Your task to perform on an android device: Check the weather Image 0: 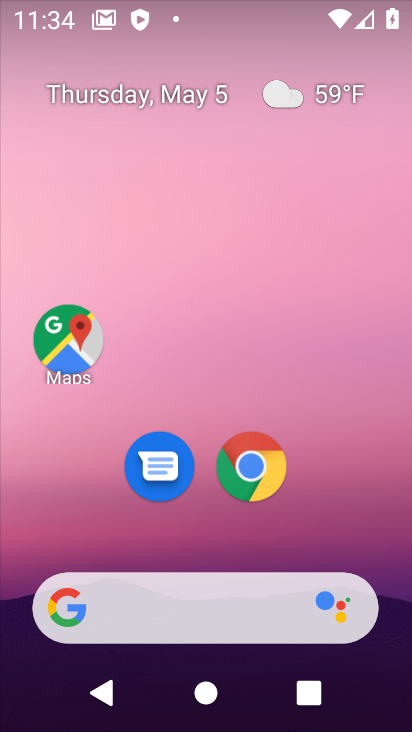
Step 0: click (248, 466)
Your task to perform on an android device: Check the weather Image 1: 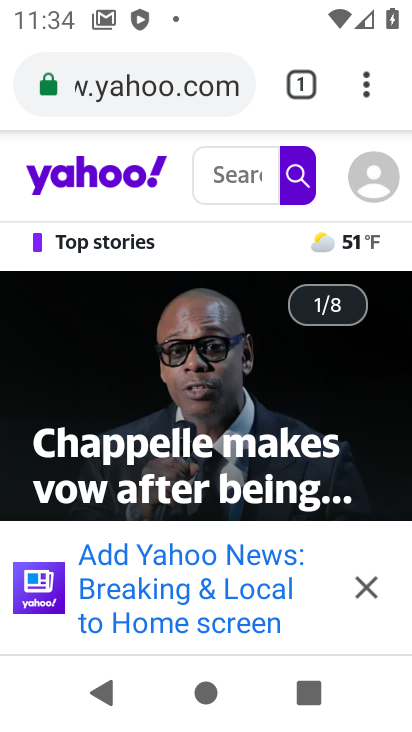
Step 1: click (170, 100)
Your task to perform on an android device: Check the weather Image 2: 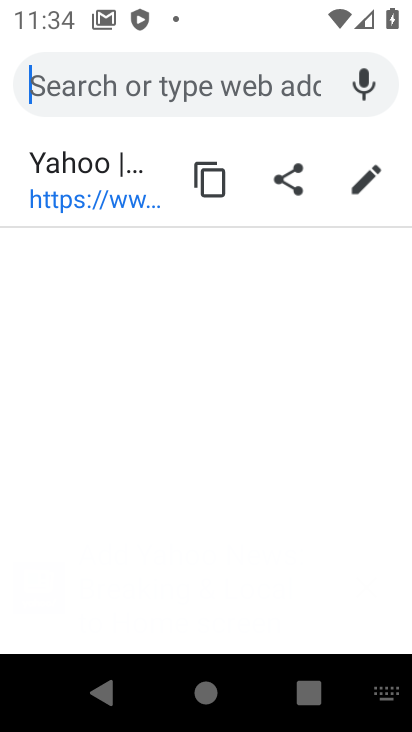
Step 2: type "weather"
Your task to perform on an android device: Check the weather Image 3: 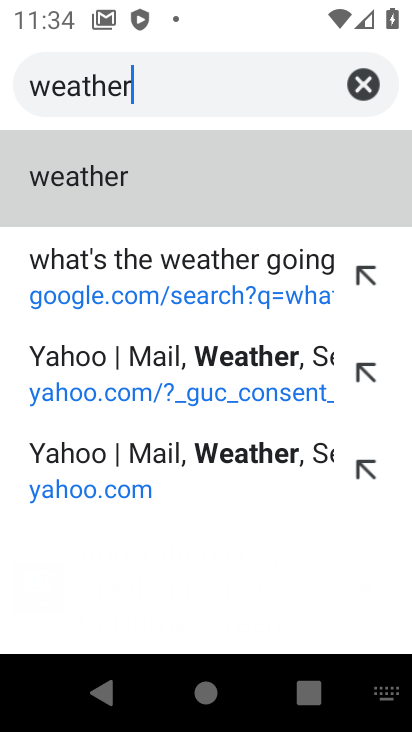
Step 3: click (115, 212)
Your task to perform on an android device: Check the weather Image 4: 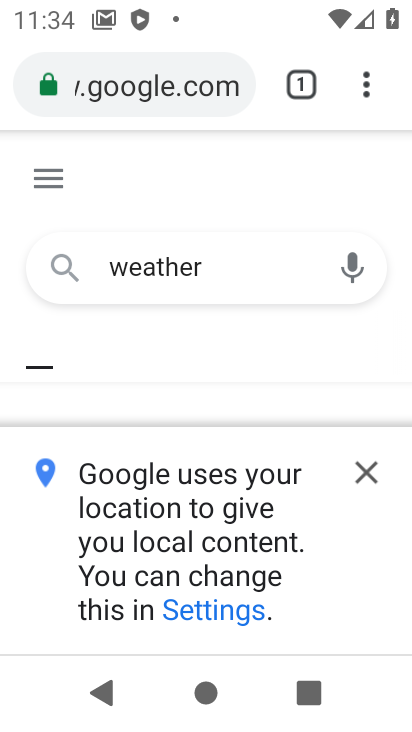
Step 4: click (369, 472)
Your task to perform on an android device: Check the weather Image 5: 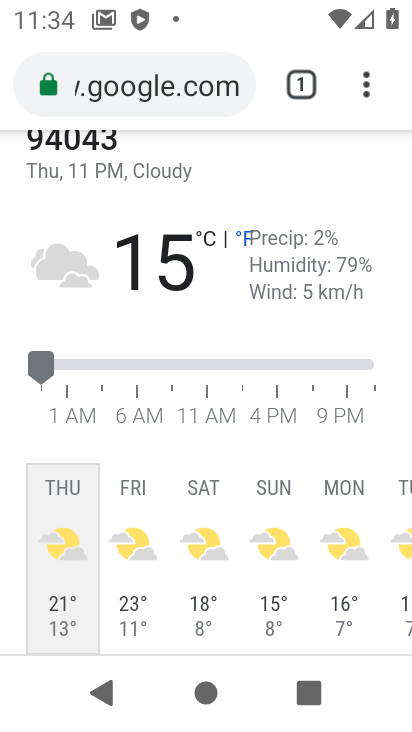
Step 5: task complete